Your task to perform on an android device: Open calendar and show me the third week of next month Image 0: 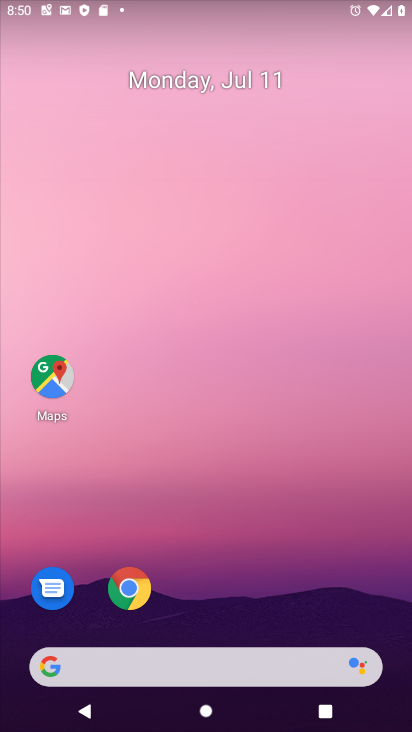
Step 0: click (131, 589)
Your task to perform on an android device: Open calendar and show me the third week of next month Image 1: 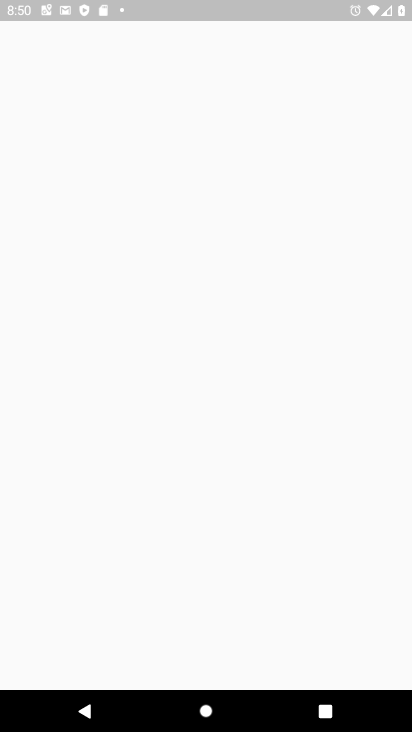
Step 1: press home button
Your task to perform on an android device: Open calendar and show me the third week of next month Image 2: 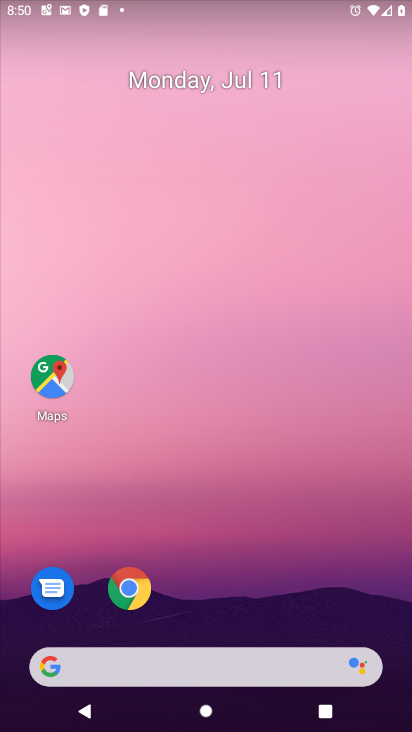
Step 2: drag from (236, 626) to (370, 201)
Your task to perform on an android device: Open calendar and show me the third week of next month Image 3: 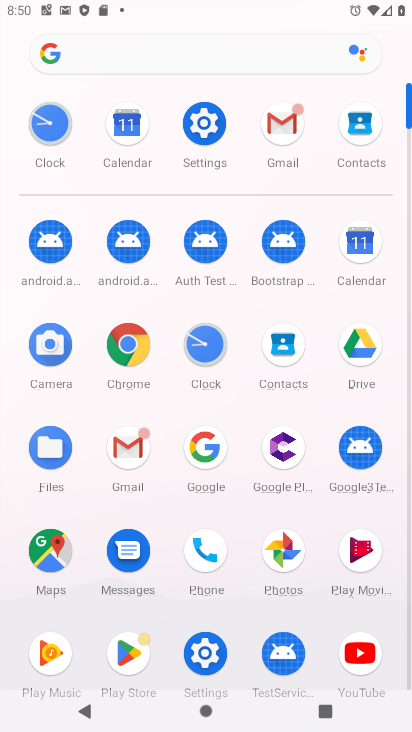
Step 3: click (363, 240)
Your task to perform on an android device: Open calendar and show me the third week of next month Image 4: 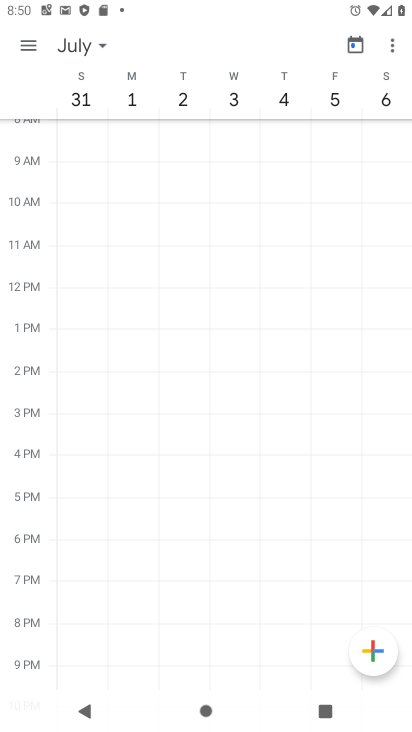
Step 4: click (91, 42)
Your task to perform on an android device: Open calendar and show me the third week of next month Image 5: 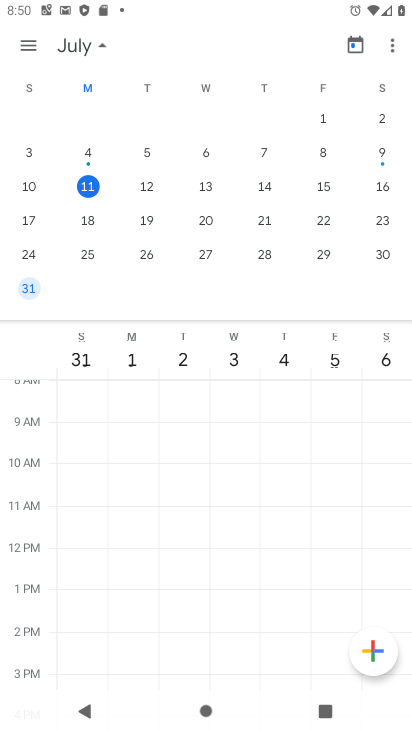
Step 5: drag from (316, 227) to (1, 193)
Your task to perform on an android device: Open calendar and show me the third week of next month Image 6: 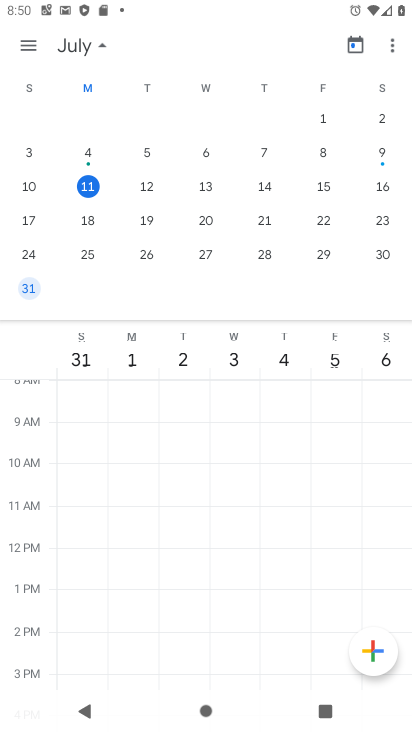
Step 6: drag from (376, 195) to (1, 287)
Your task to perform on an android device: Open calendar and show me the third week of next month Image 7: 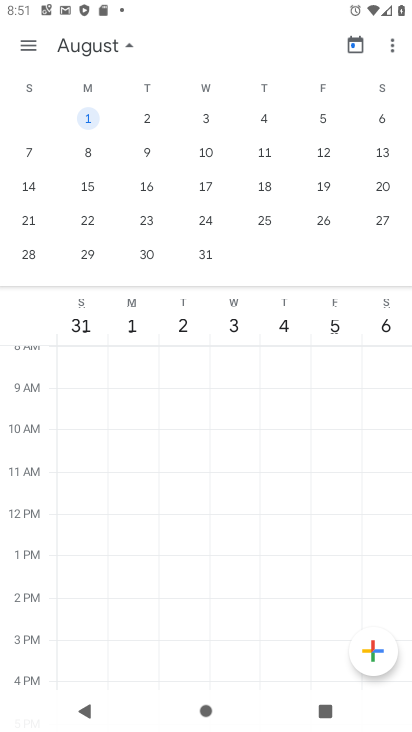
Step 7: click (32, 180)
Your task to perform on an android device: Open calendar and show me the third week of next month Image 8: 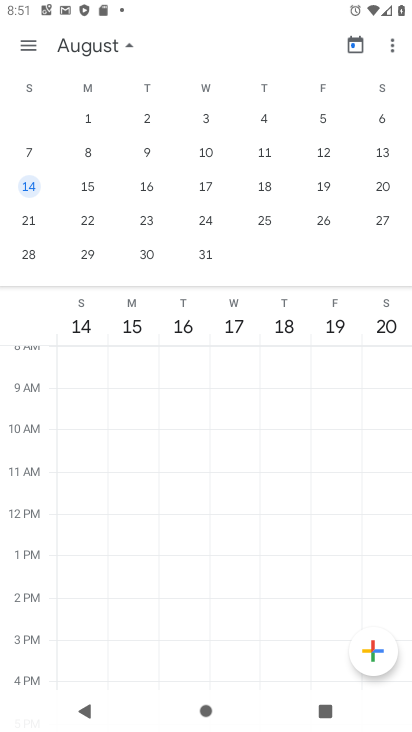
Step 8: click (27, 38)
Your task to perform on an android device: Open calendar and show me the third week of next month Image 9: 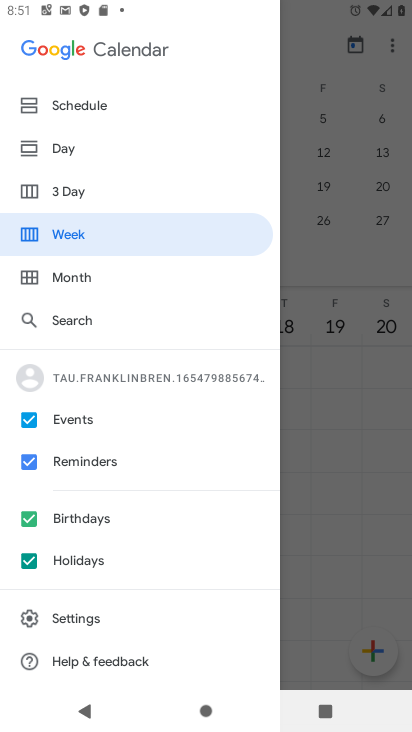
Step 9: click (55, 232)
Your task to perform on an android device: Open calendar and show me the third week of next month Image 10: 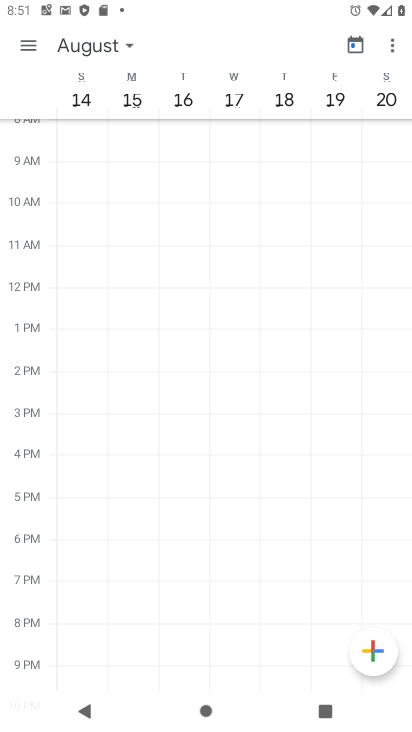
Step 10: task complete